Your task to perform on an android device: Turn off the flashlight Image 0: 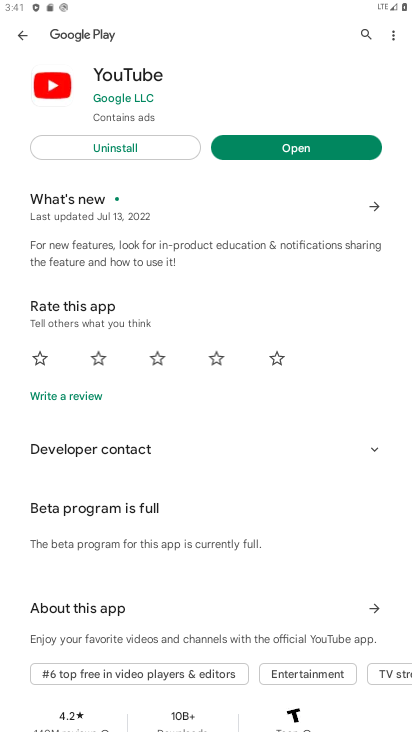
Step 0: press home button
Your task to perform on an android device: Turn off the flashlight Image 1: 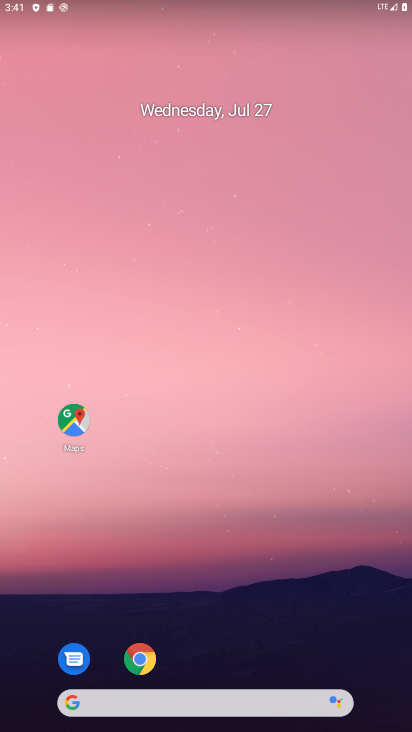
Step 1: task complete